Your task to perform on an android device: What's the weather today? Image 0: 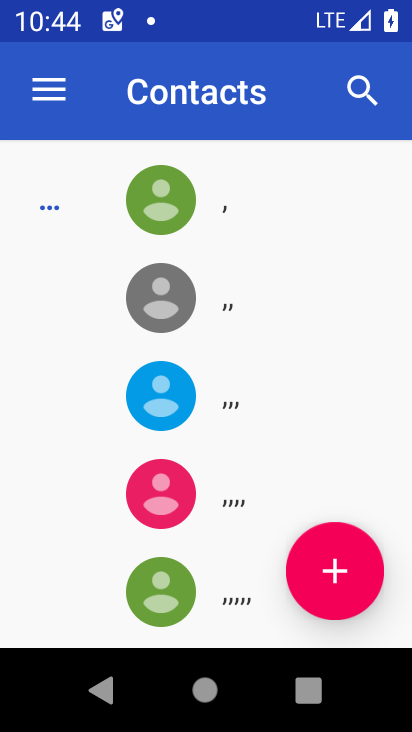
Step 0: press home button
Your task to perform on an android device: What's the weather today? Image 1: 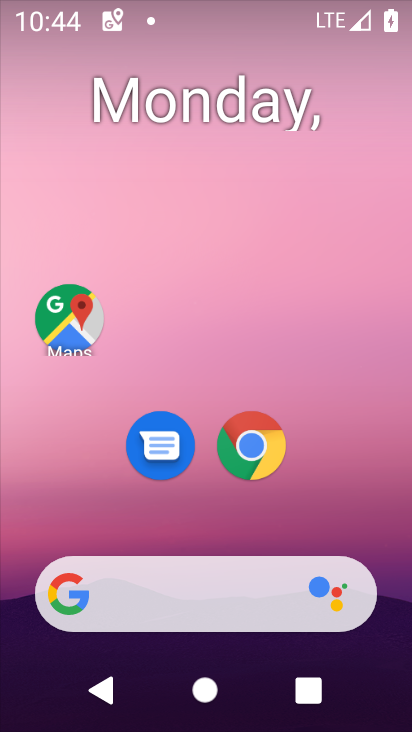
Step 1: click (237, 585)
Your task to perform on an android device: What's the weather today? Image 2: 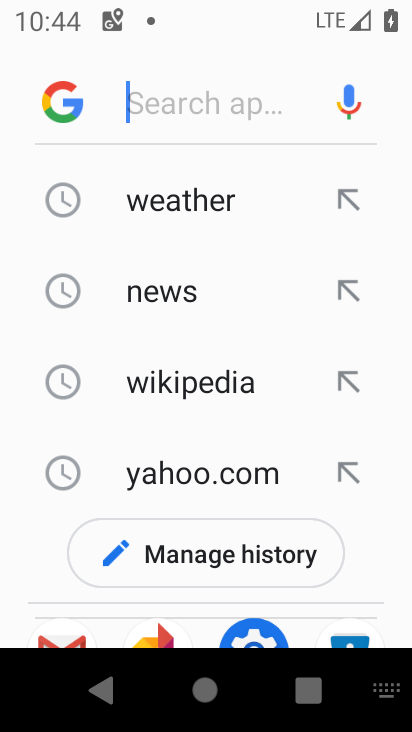
Step 2: type " What's the weather today?"
Your task to perform on an android device: What's the weather today? Image 3: 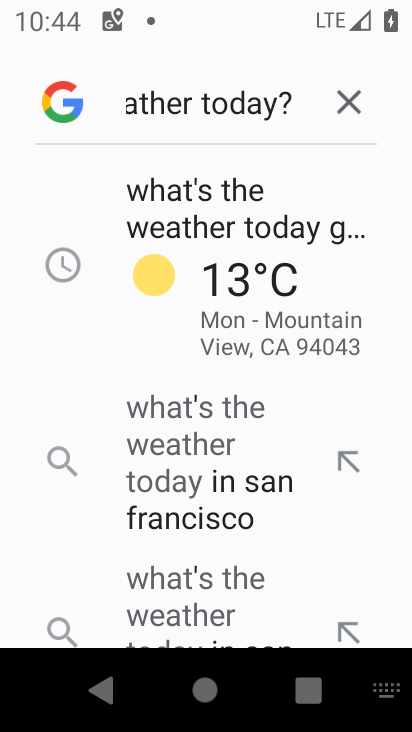
Step 3: click (229, 207)
Your task to perform on an android device: What's the weather today? Image 4: 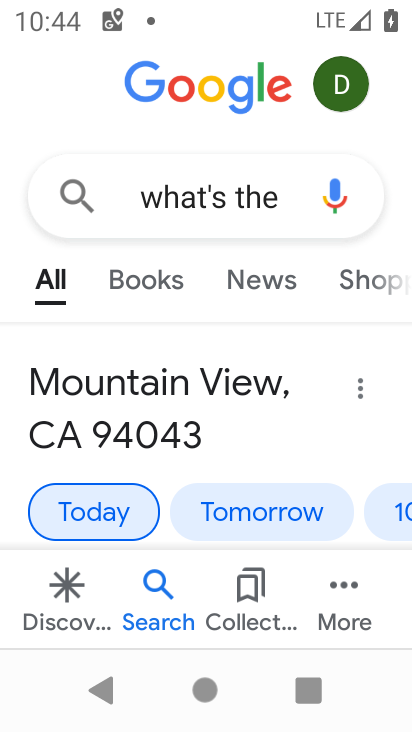
Step 4: task complete